Your task to perform on an android device: Open my contact list Image 0: 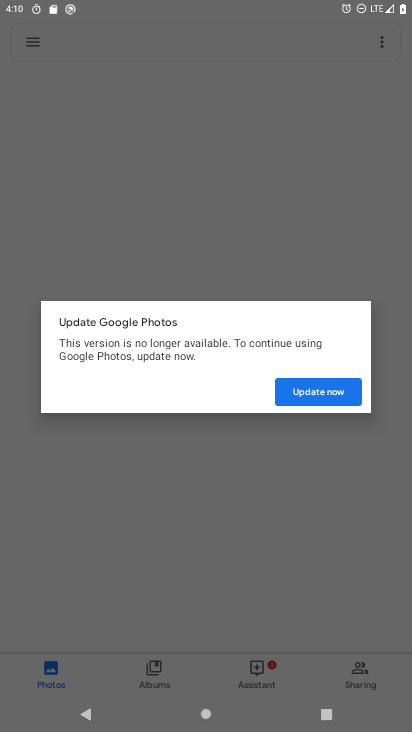
Step 0: press home button
Your task to perform on an android device: Open my contact list Image 1: 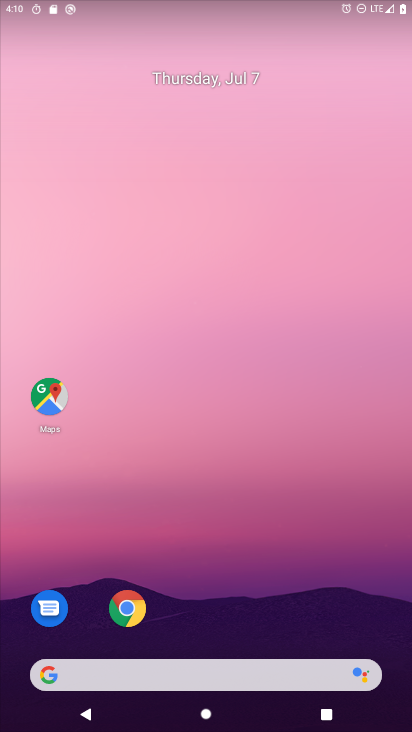
Step 1: drag from (248, 715) to (248, 193)
Your task to perform on an android device: Open my contact list Image 2: 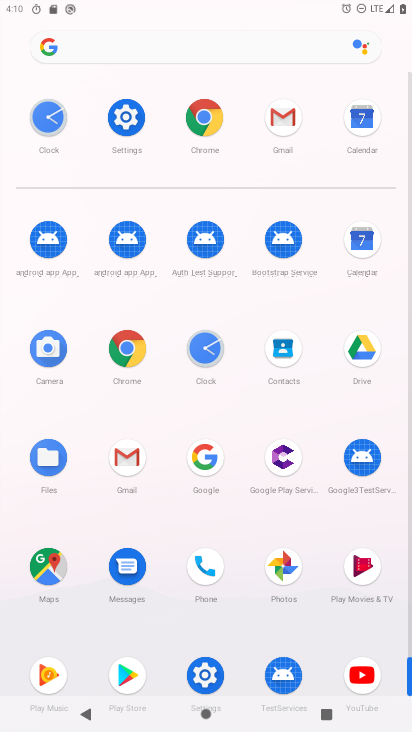
Step 2: click (286, 357)
Your task to perform on an android device: Open my contact list Image 3: 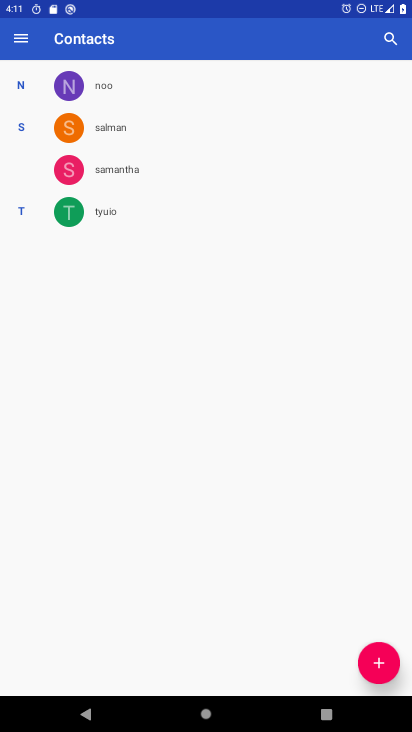
Step 3: task complete